Your task to perform on an android device: Open calendar and show me the second week of next month Image 0: 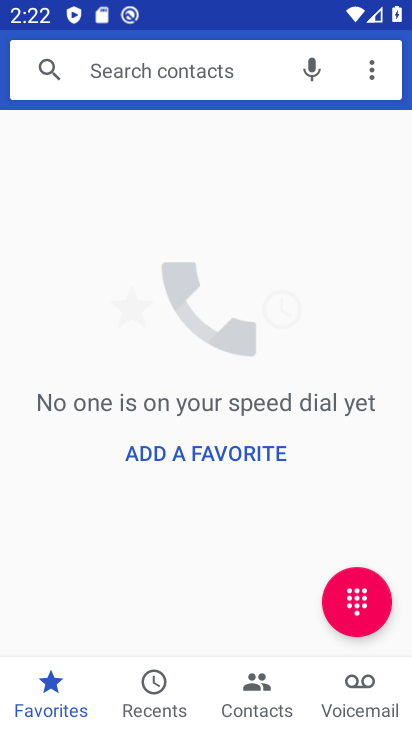
Step 0: press home button
Your task to perform on an android device: Open calendar and show me the second week of next month Image 1: 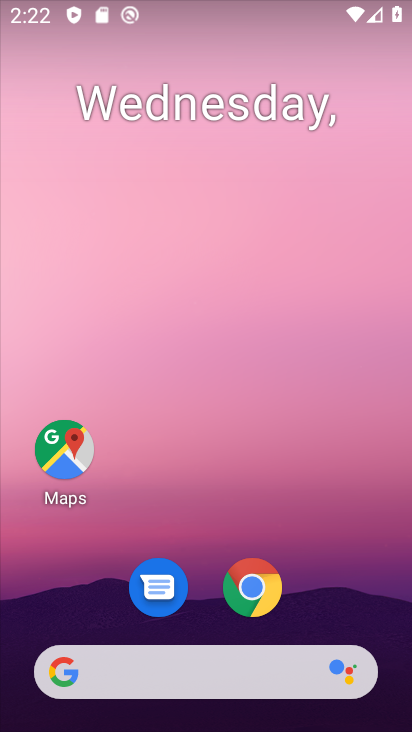
Step 1: drag from (385, 619) to (275, 311)
Your task to perform on an android device: Open calendar and show me the second week of next month Image 2: 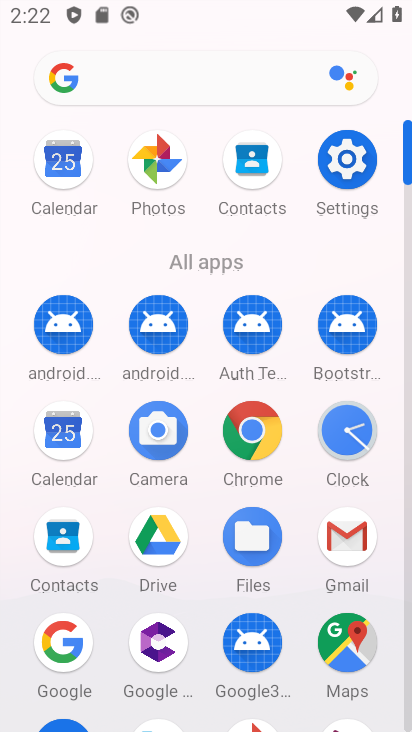
Step 2: click (50, 443)
Your task to perform on an android device: Open calendar and show me the second week of next month Image 3: 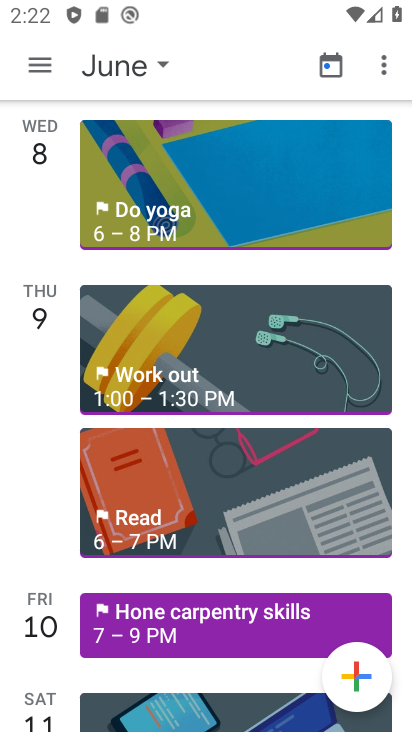
Step 3: click (45, 70)
Your task to perform on an android device: Open calendar and show me the second week of next month Image 4: 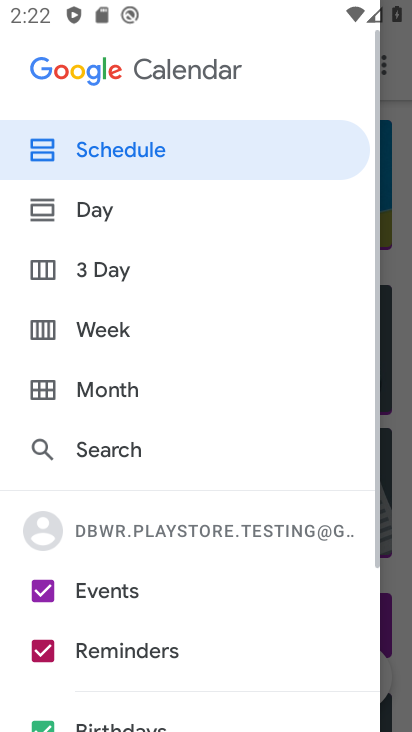
Step 4: click (141, 334)
Your task to perform on an android device: Open calendar and show me the second week of next month Image 5: 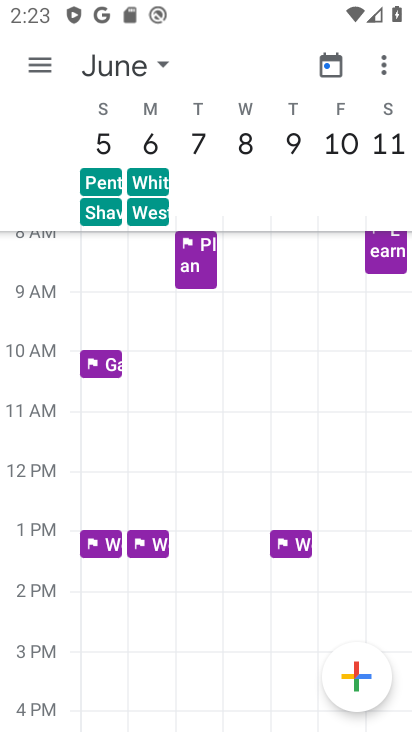
Step 5: click (141, 62)
Your task to perform on an android device: Open calendar and show me the second week of next month Image 6: 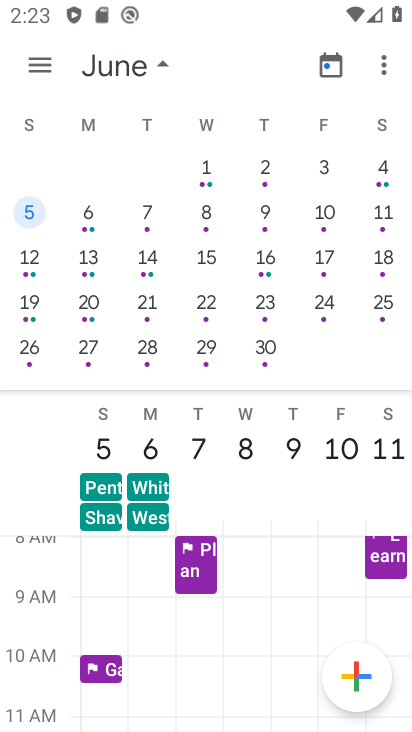
Step 6: click (259, 219)
Your task to perform on an android device: Open calendar and show me the second week of next month Image 7: 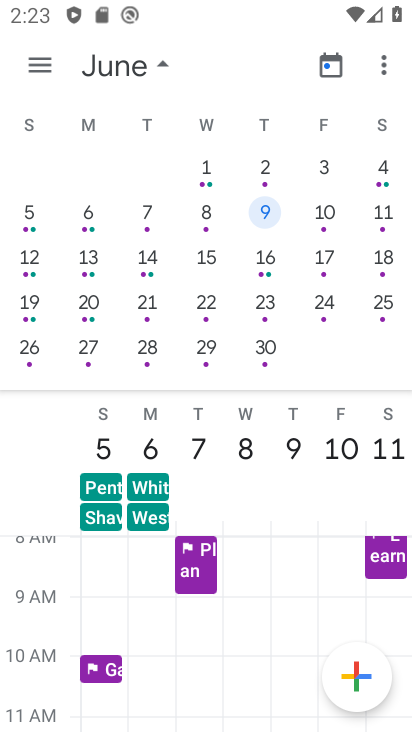
Step 7: task complete